Your task to perform on an android device: turn on notifications settings in the gmail app Image 0: 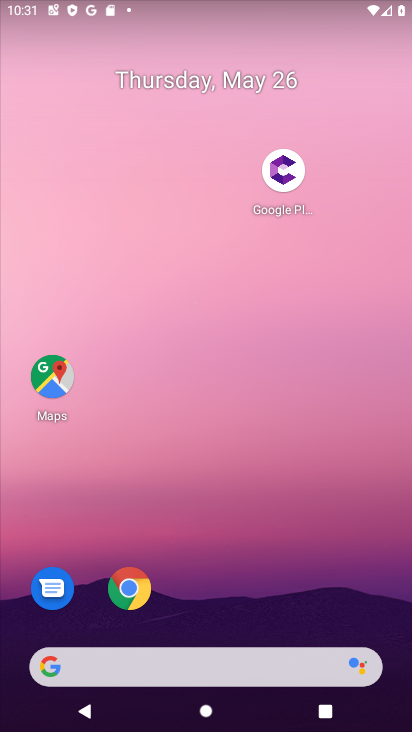
Step 0: drag from (323, 598) to (159, 33)
Your task to perform on an android device: turn on notifications settings in the gmail app Image 1: 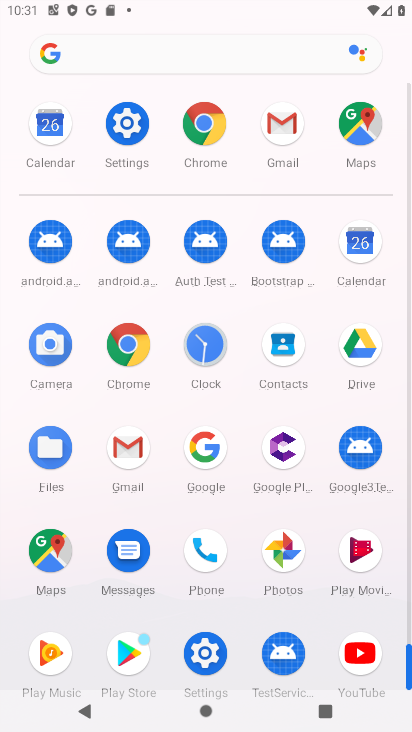
Step 1: click (125, 442)
Your task to perform on an android device: turn on notifications settings in the gmail app Image 2: 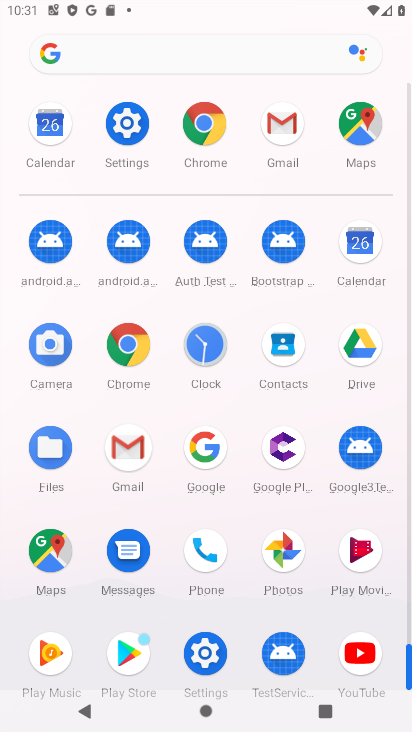
Step 2: click (125, 442)
Your task to perform on an android device: turn on notifications settings in the gmail app Image 3: 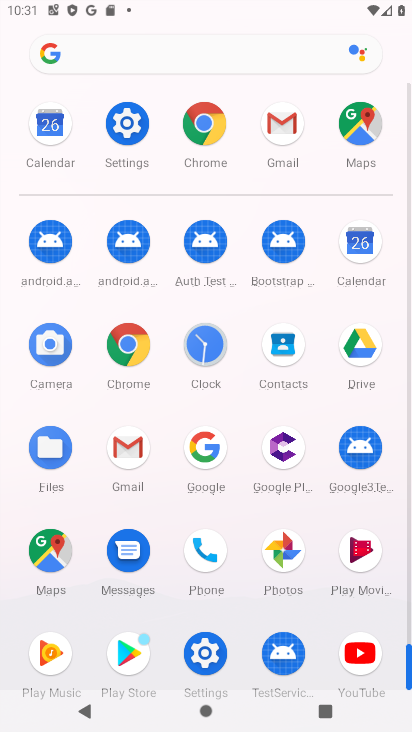
Step 3: click (135, 444)
Your task to perform on an android device: turn on notifications settings in the gmail app Image 4: 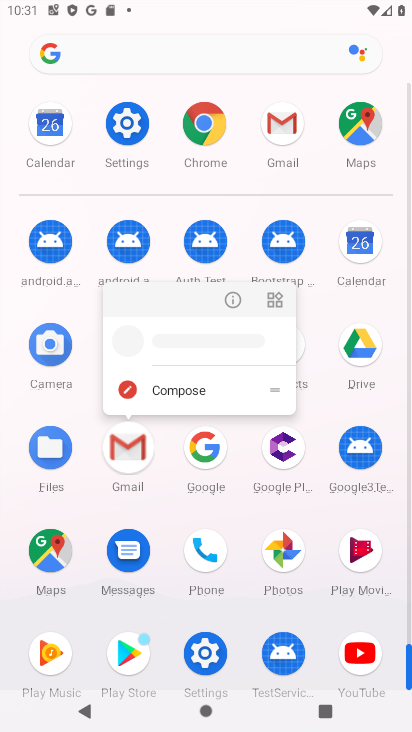
Step 4: click (134, 448)
Your task to perform on an android device: turn on notifications settings in the gmail app Image 5: 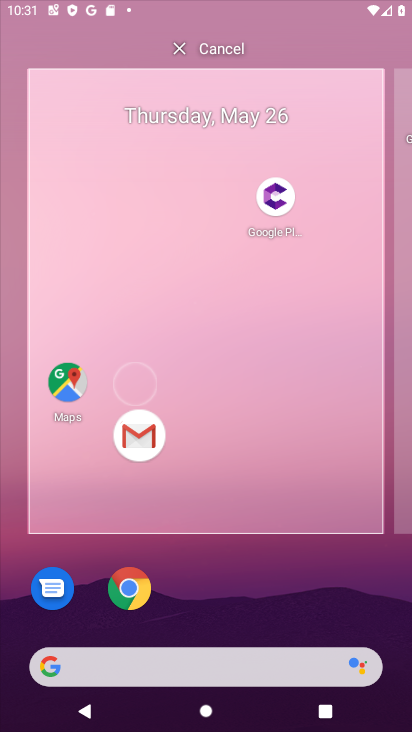
Step 5: click (146, 436)
Your task to perform on an android device: turn on notifications settings in the gmail app Image 6: 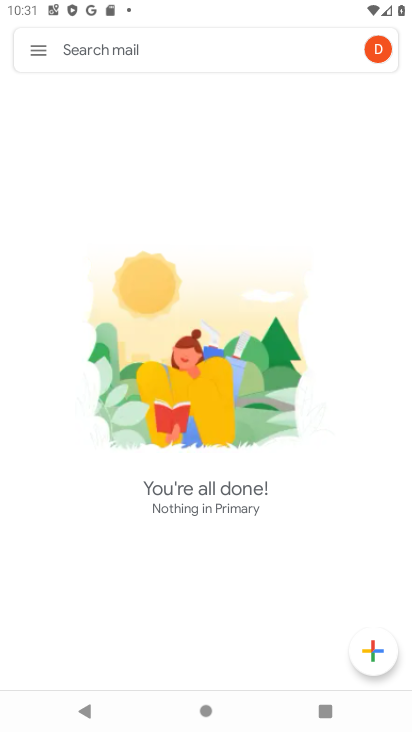
Step 6: click (29, 52)
Your task to perform on an android device: turn on notifications settings in the gmail app Image 7: 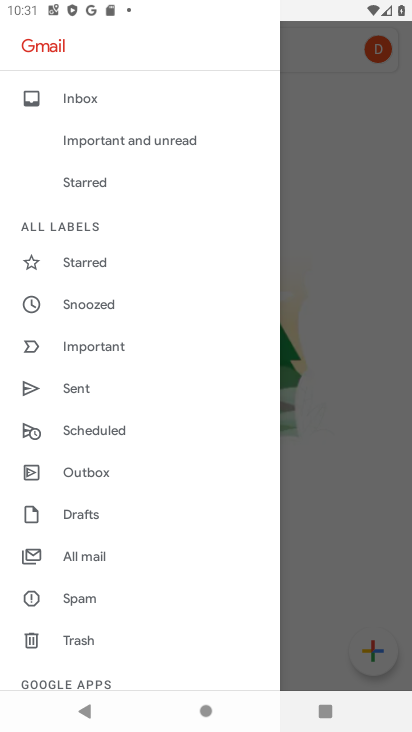
Step 7: drag from (90, 617) to (78, 261)
Your task to perform on an android device: turn on notifications settings in the gmail app Image 8: 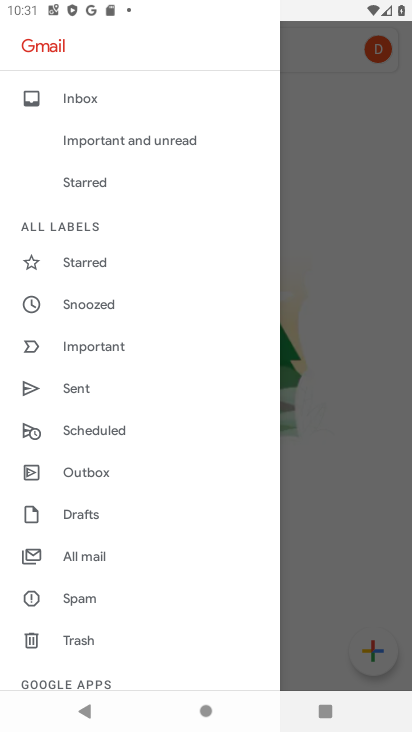
Step 8: drag from (121, 541) to (161, 178)
Your task to perform on an android device: turn on notifications settings in the gmail app Image 9: 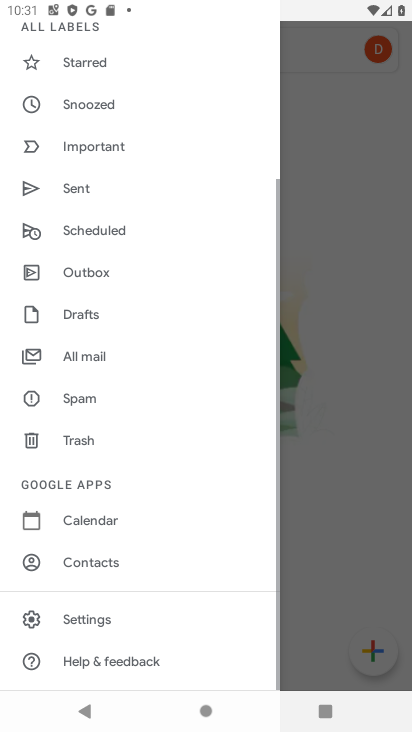
Step 9: drag from (124, 411) to (100, 38)
Your task to perform on an android device: turn on notifications settings in the gmail app Image 10: 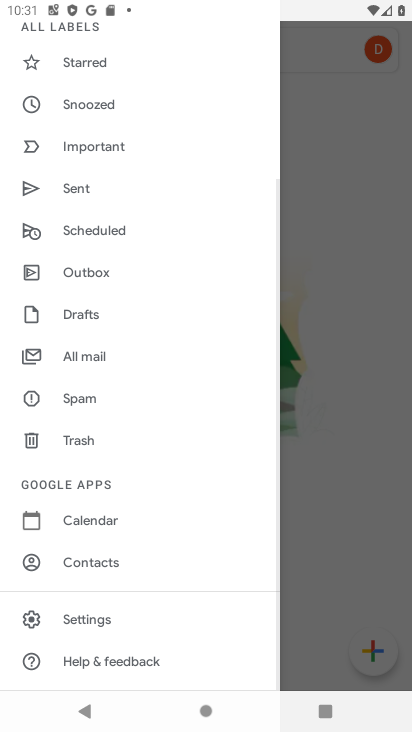
Step 10: click (78, 615)
Your task to perform on an android device: turn on notifications settings in the gmail app Image 11: 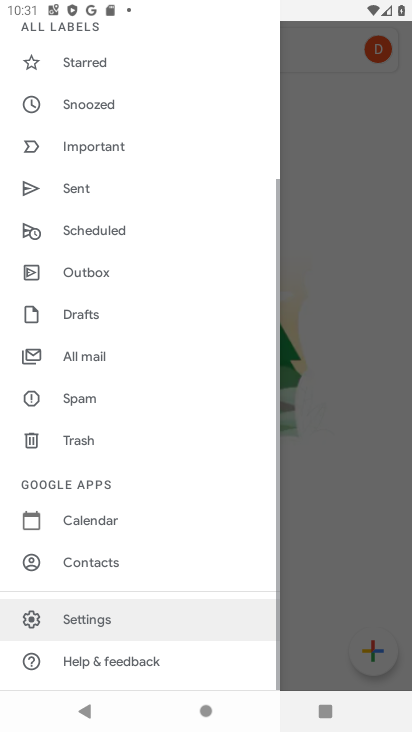
Step 11: click (84, 603)
Your task to perform on an android device: turn on notifications settings in the gmail app Image 12: 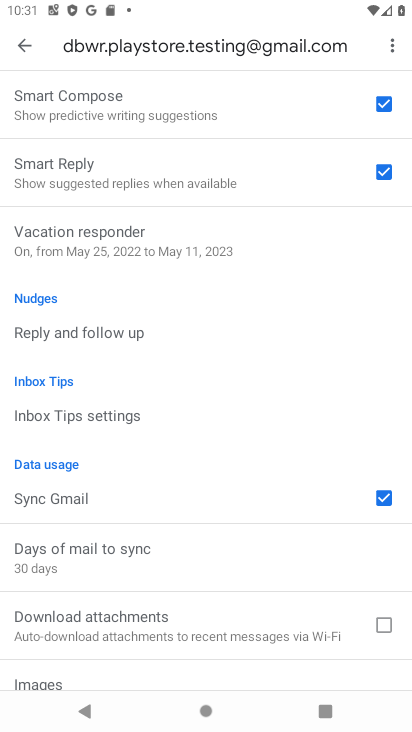
Step 12: drag from (70, 211) to (171, 620)
Your task to perform on an android device: turn on notifications settings in the gmail app Image 13: 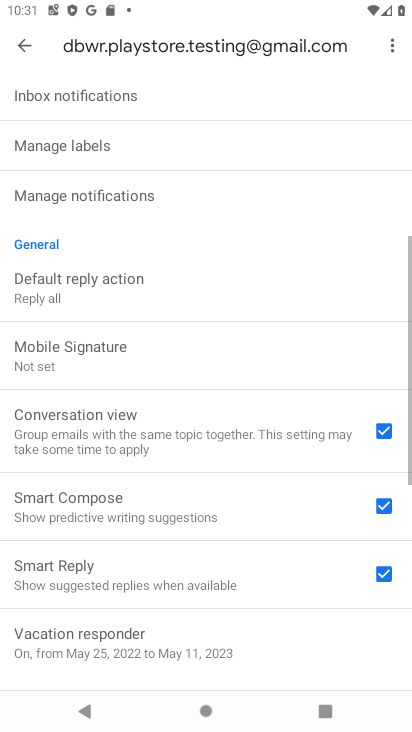
Step 13: drag from (172, 262) to (231, 718)
Your task to perform on an android device: turn on notifications settings in the gmail app Image 14: 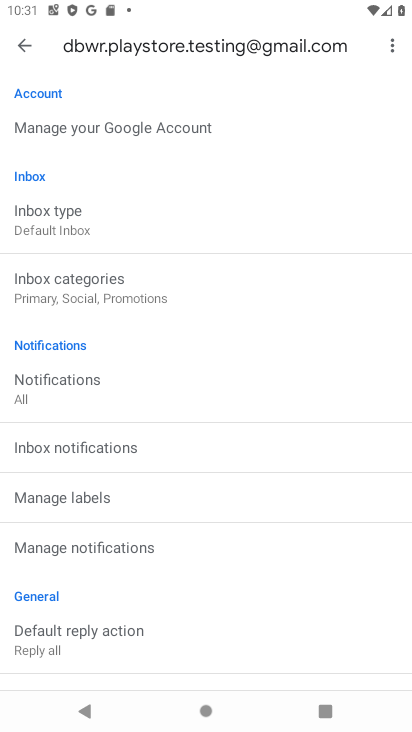
Step 14: click (35, 356)
Your task to perform on an android device: turn on notifications settings in the gmail app Image 15: 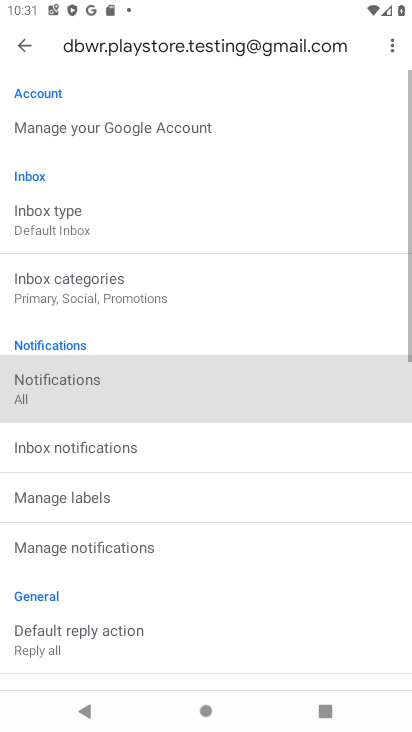
Step 15: click (35, 356)
Your task to perform on an android device: turn on notifications settings in the gmail app Image 16: 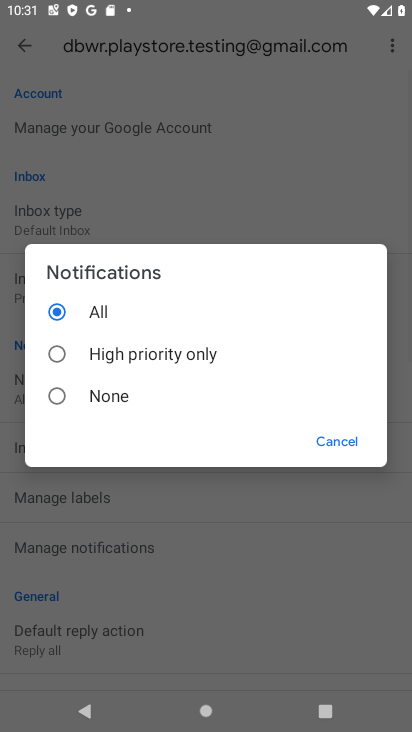
Step 16: click (330, 435)
Your task to perform on an android device: turn on notifications settings in the gmail app Image 17: 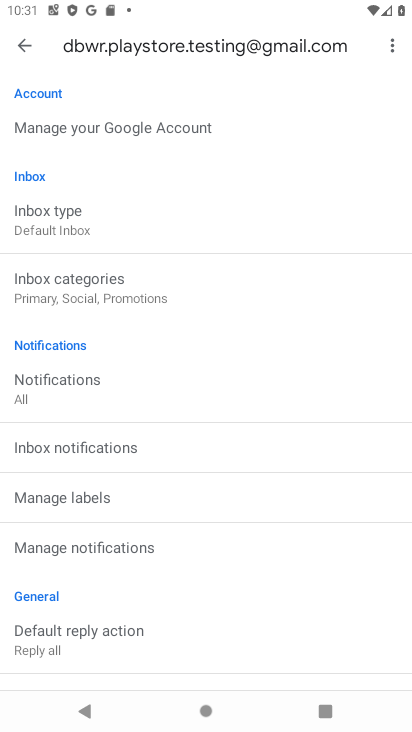
Step 17: task complete